Your task to perform on an android device: Open accessibility settings Image 0: 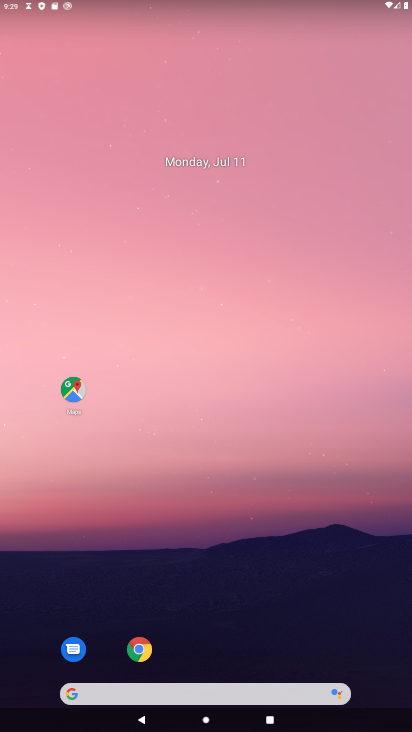
Step 0: drag from (219, 600) to (256, 70)
Your task to perform on an android device: Open accessibility settings Image 1: 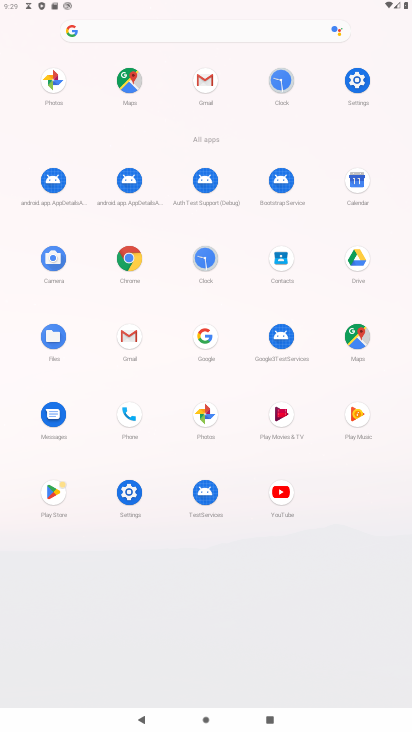
Step 1: click (129, 512)
Your task to perform on an android device: Open accessibility settings Image 2: 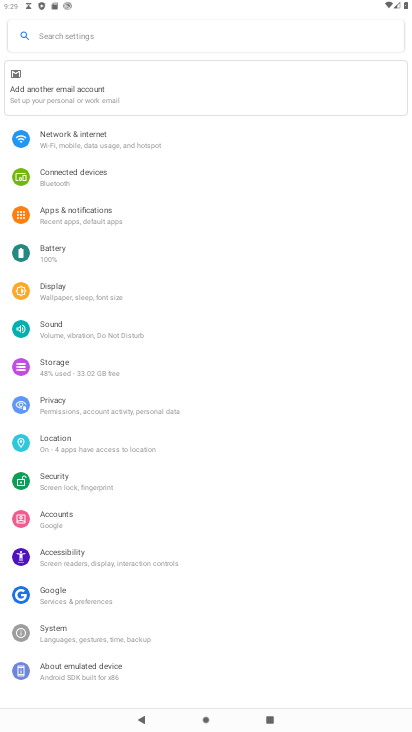
Step 2: click (92, 558)
Your task to perform on an android device: Open accessibility settings Image 3: 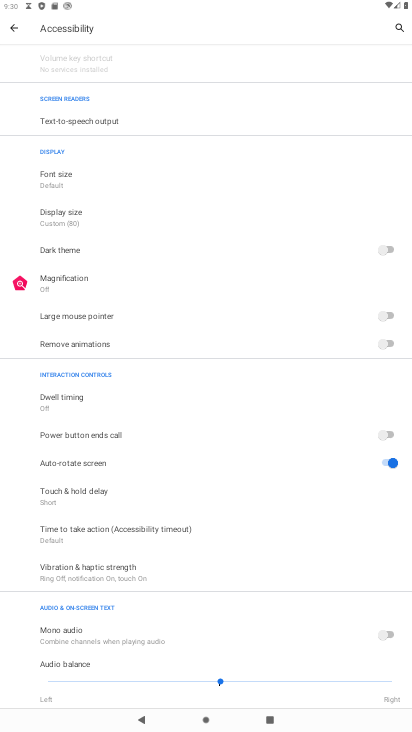
Step 3: task complete